Your task to perform on an android device: Open calendar and show me the fourth week of next month Image 0: 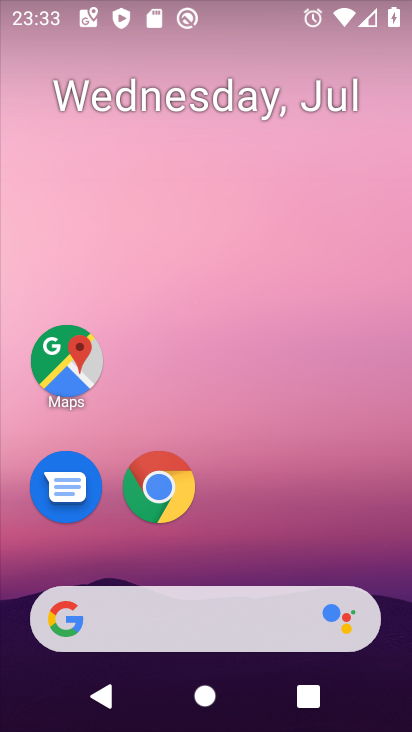
Step 0: drag from (256, 507) to (329, 22)
Your task to perform on an android device: Open calendar and show me the fourth week of next month Image 1: 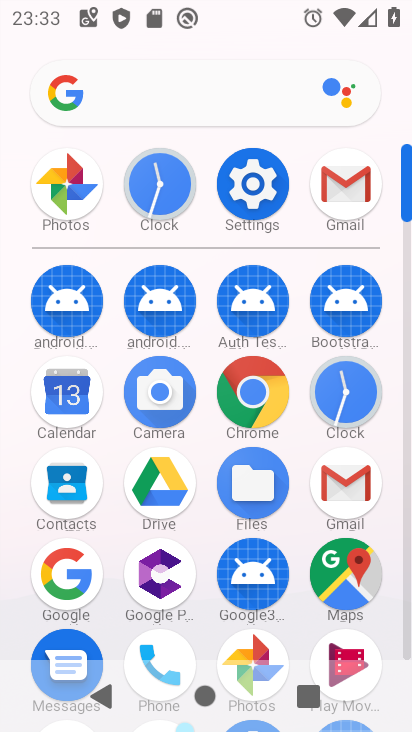
Step 1: click (55, 401)
Your task to perform on an android device: Open calendar and show me the fourth week of next month Image 2: 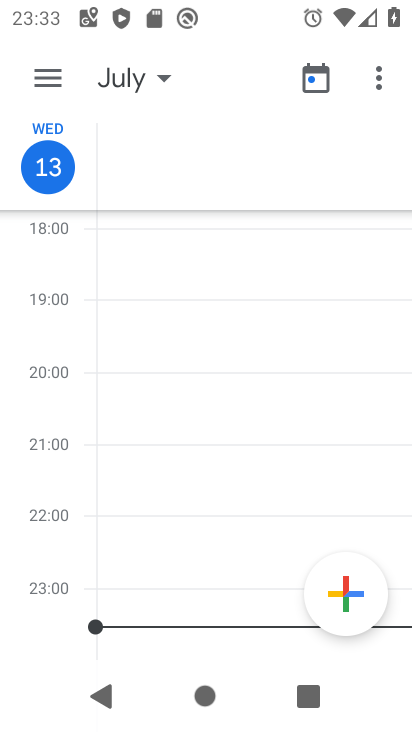
Step 2: click (149, 79)
Your task to perform on an android device: Open calendar and show me the fourth week of next month Image 3: 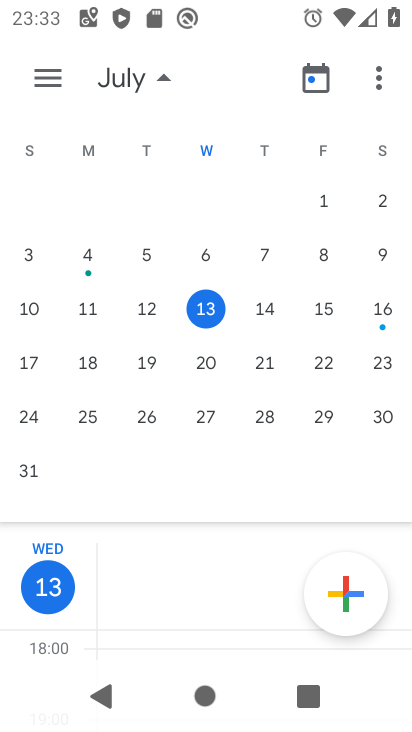
Step 3: drag from (357, 307) to (37, 314)
Your task to perform on an android device: Open calendar and show me the fourth week of next month Image 4: 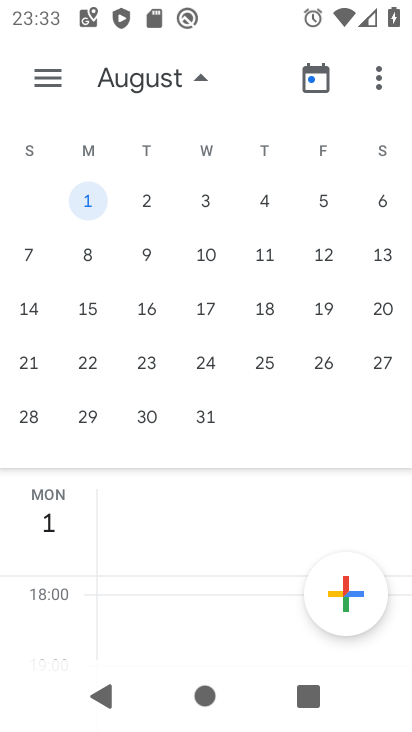
Step 4: click (89, 357)
Your task to perform on an android device: Open calendar and show me the fourth week of next month Image 5: 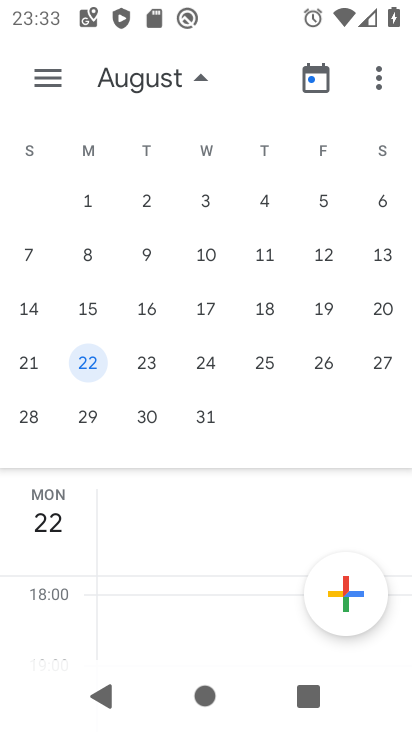
Step 5: task complete